Your task to perform on an android device: all mails in gmail Image 0: 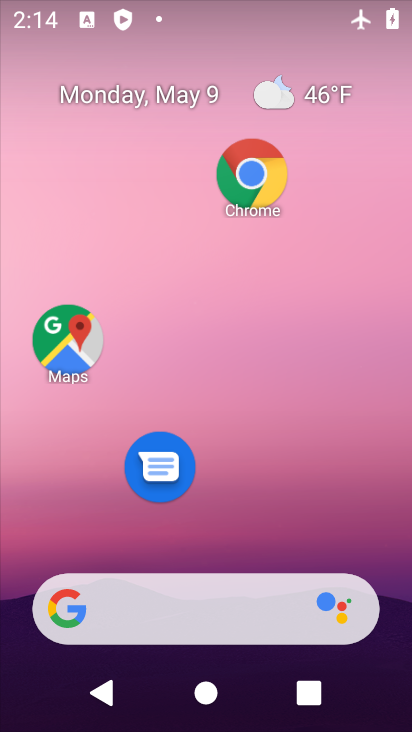
Step 0: click (310, 66)
Your task to perform on an android device: all mails in gmail Image 1: 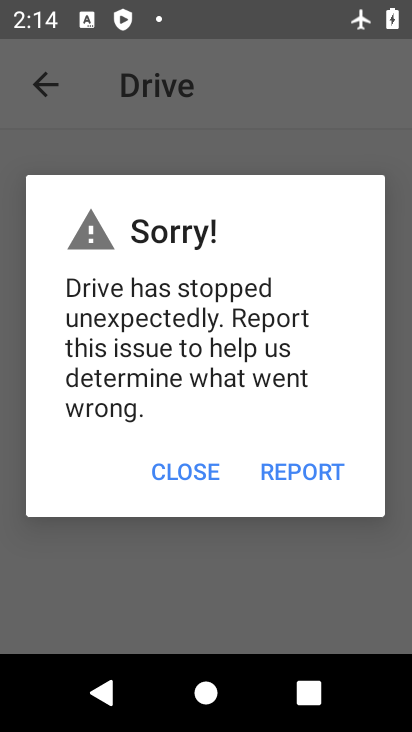
Step 1: press home button
Your task to perform on an android device: all mails in gmail Image 2: 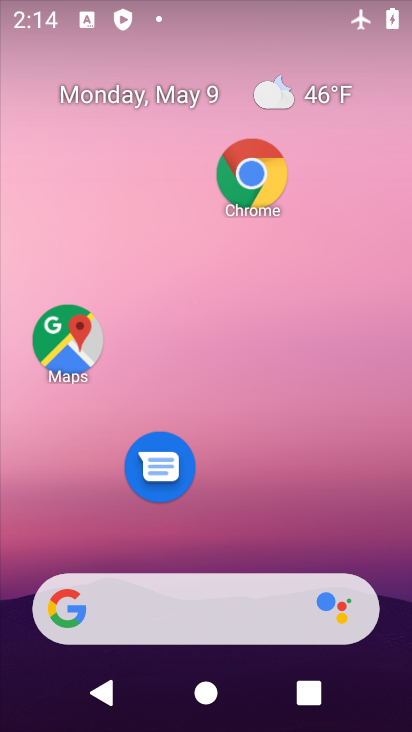
Step 2: drag from (178, 579) to (152, 105)
Your task to perform on an android device: all mails in gmail Image 3: 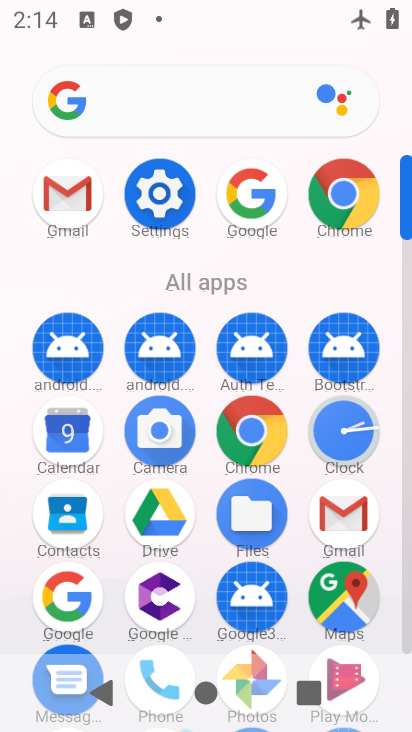
Step 3: click (341, 503)
Your task to perform on an android device: all mails in gmail Image 4: 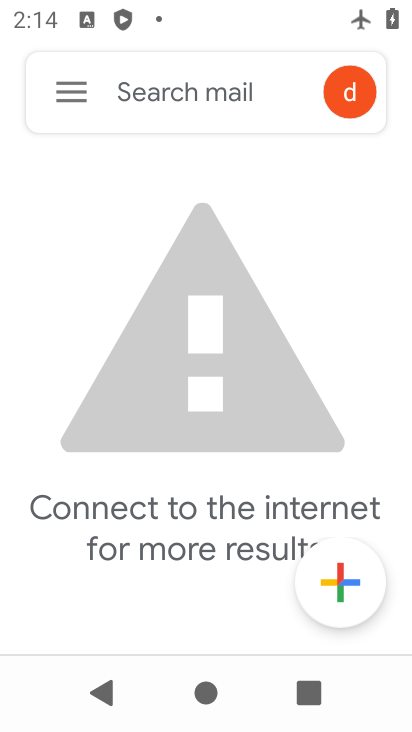
Step 4: click (81, 106)
Your task to perform on an android device: all mails in gmail Image 5: 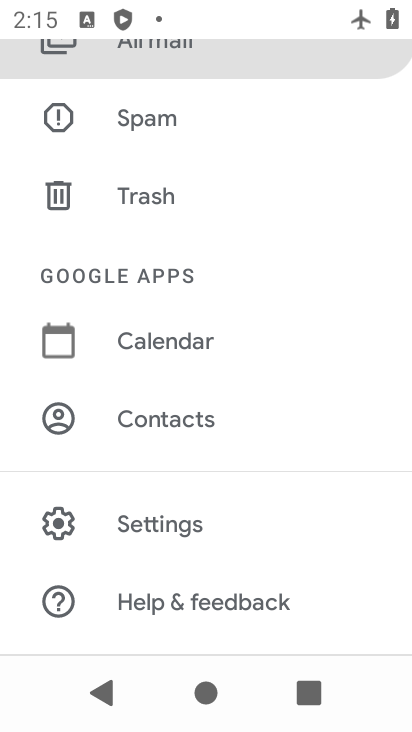
Step 5: click (174, 51)
Your task to perform on an android device: all mails in gmail Image 6: 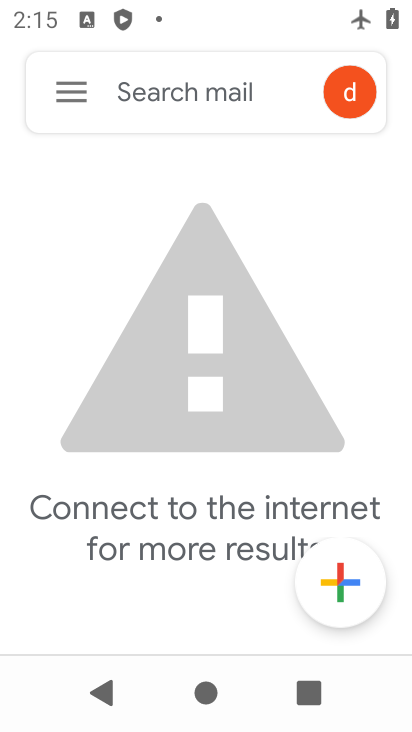
Step 6: task complete